Your task to perform on an android device: turn on javascript in the chrome app Image 0: 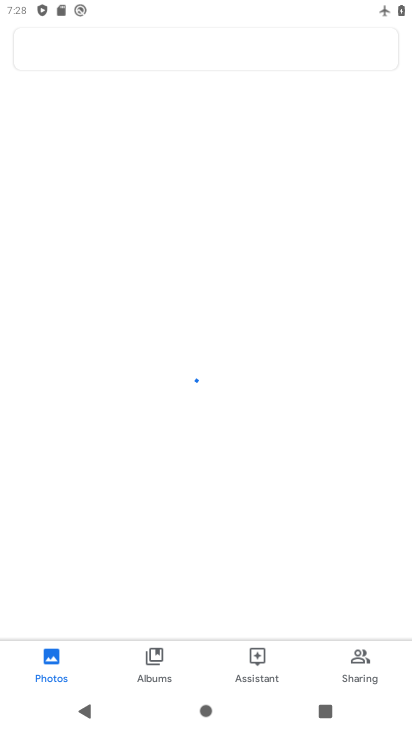
Step 0: press home button
Your task to perform on an android device: turn on javascript in the chrome app Image 1: 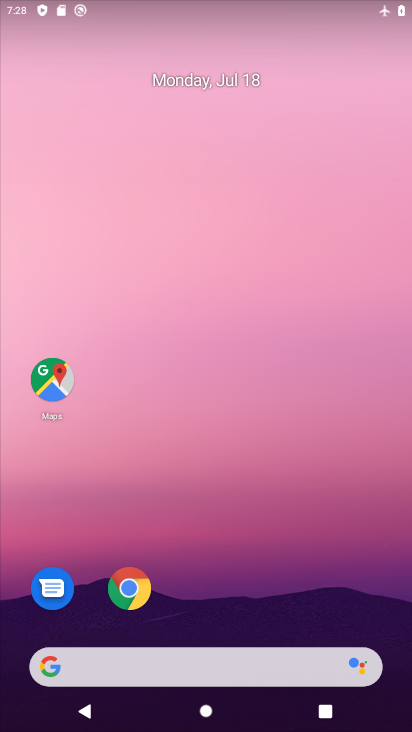
Step 1: click (134, 600)
Your task to perform on an android device: turn on javascript in the chrome app Image 2: 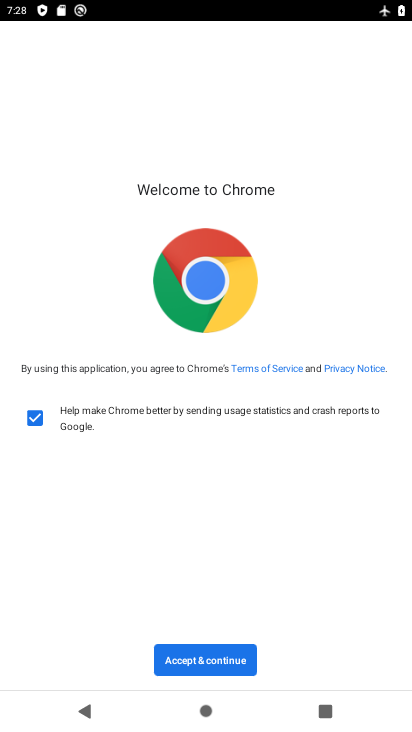
Step 2: click (182, 665)
Your task to perform on an android device: turn on javascript in the chrome app Image 3: 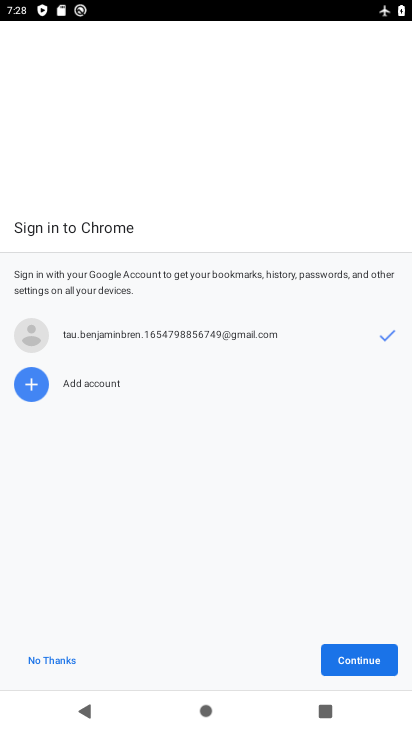
Step 3: click (342, 653)
Your task to perform on an android device: turn on javascript in the chrome app Image 4: 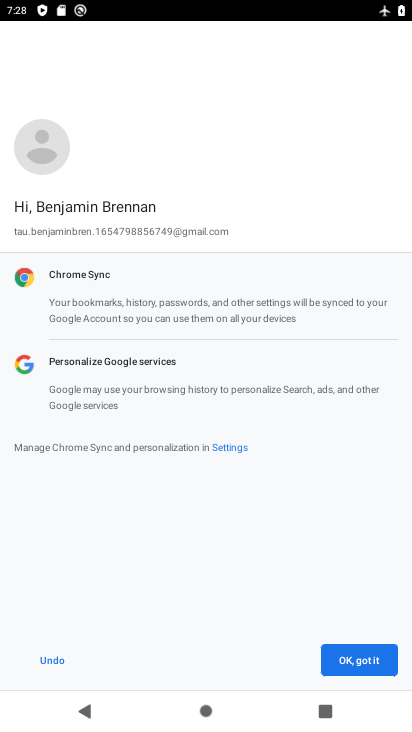
Step 4: click (352, 663)
Your task to perform on an android device: turn on javascript in the chrome app Image 5: 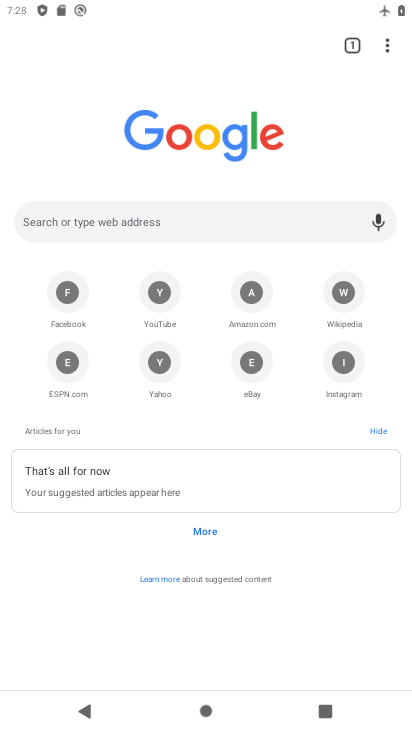
Step 5: click (386, 43)
Your task to perform on an android device: turn on javascript in the chrome app Image 6: 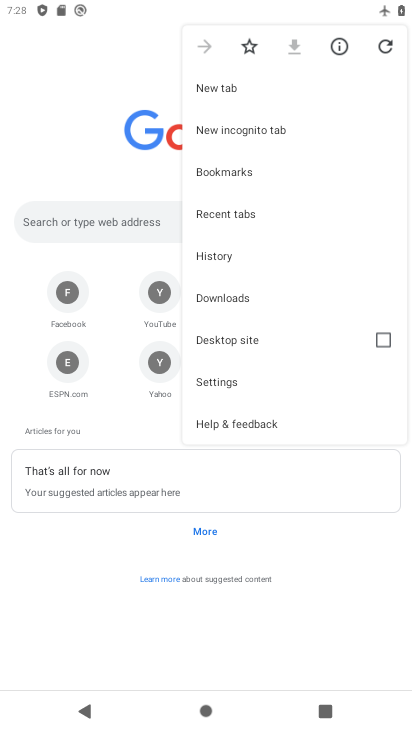
Step 6: click (220, 382)
Your task to perform on an android device: turn on javascript in the chrome app Image 7: 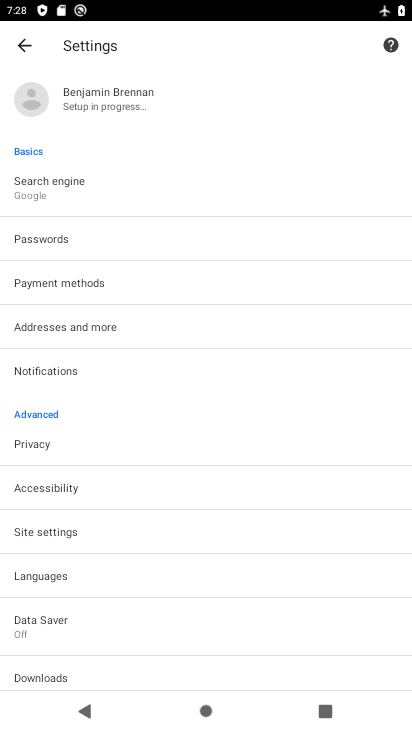
Step 7: click (55, 529)
Your task to perform on an android device: turn on javascript in the chrome app Image 8: 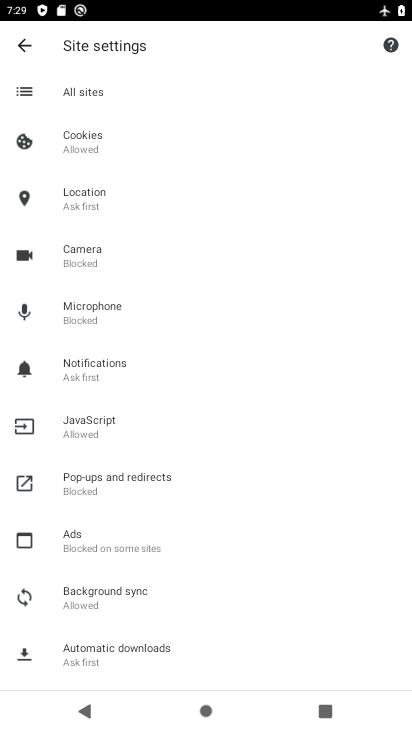
Step 8: click (109, 424)
Your task to perform on an android device: turn on javascript in the chrome app Image 9: 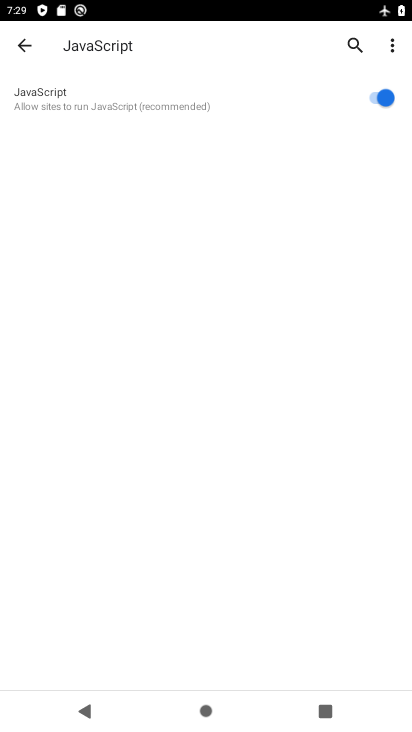
Step 9: task complete